Your task to perform on an android device: Open ESPN.com Image 0: 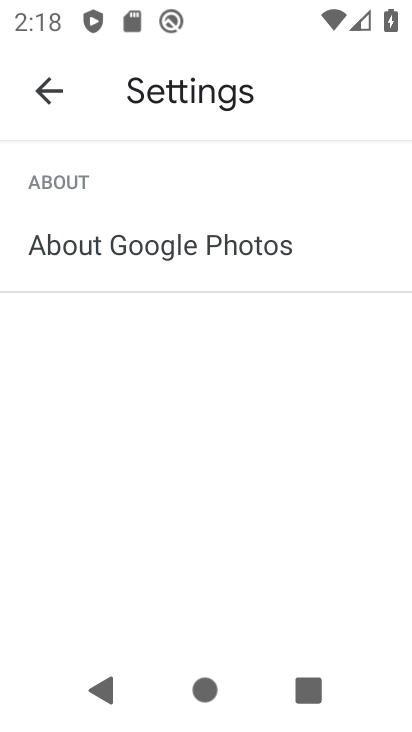
Step 0: press home button
Your task to perform on an android device: Open ESPN.com Image 1: 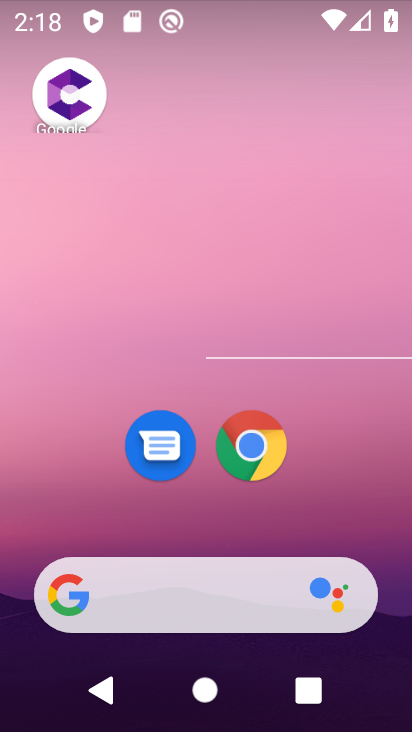
Step 1: click (239, 447)
Your task to perform on an android device: Open ESPN.com Image 2: 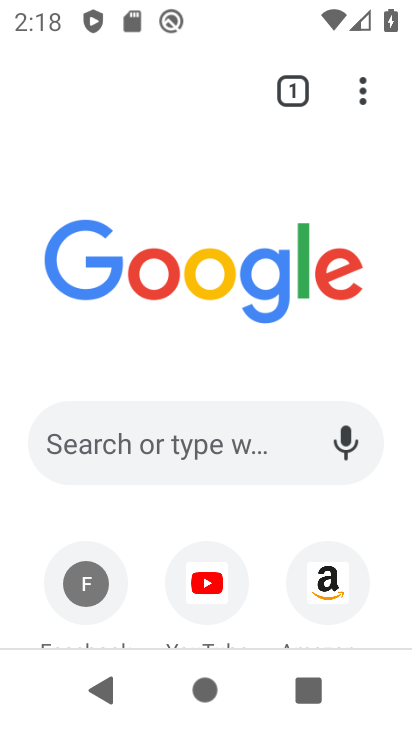
Step 2: drag from (221, 589) to (311, 346)
Your task to perform on an android device: Open ESPN.com Image 3: 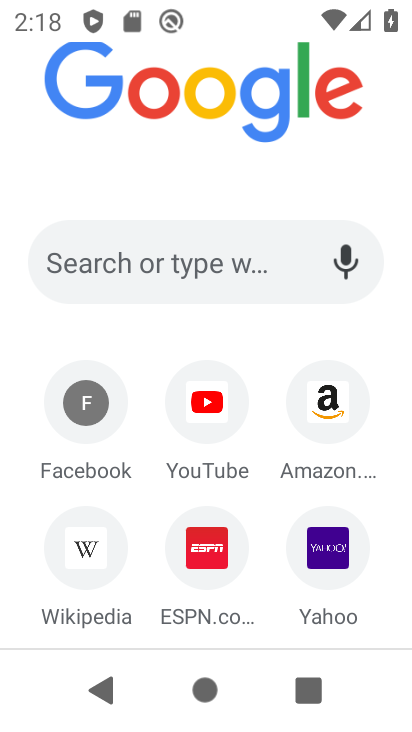
Step 3: click (227, 542)
Your task to perform on an android device: Open ESPN.com Image 4: 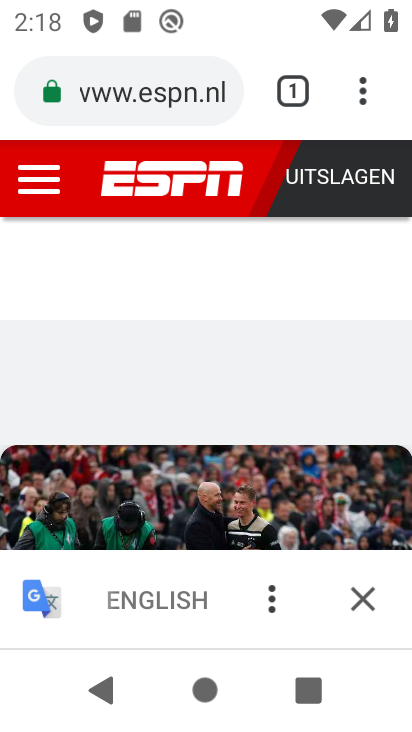
Step 4: task complete